Your task to perform on an android device: check google app version Image 0: 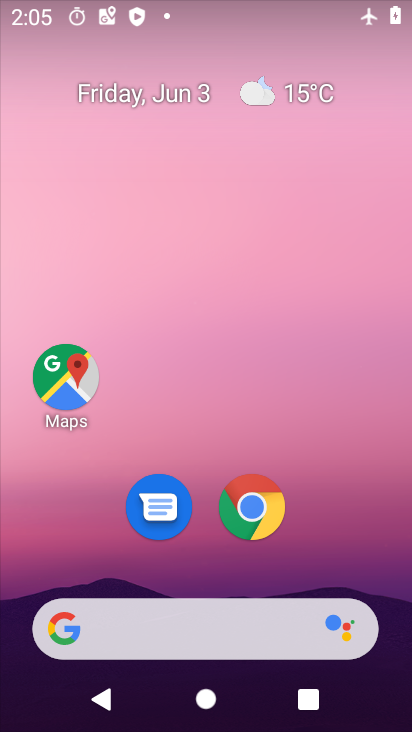
Step 0: drag from (386, 633) to (217, 28)
Your task to perform on an android device: check google app version Image 1: 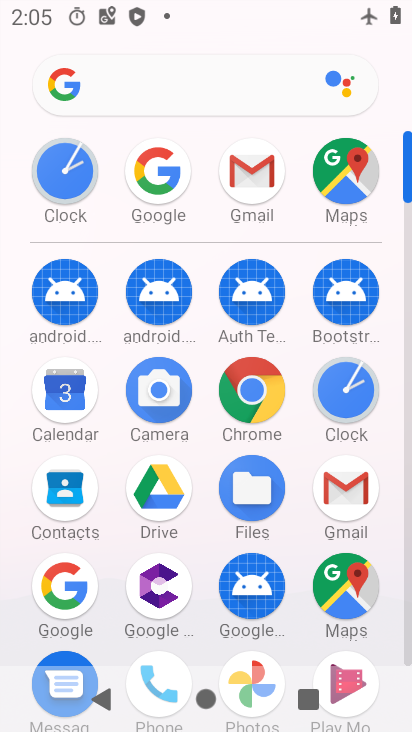
Step 1: click (79, 571)
Your task to perform on an android device: check google app version Image 2: 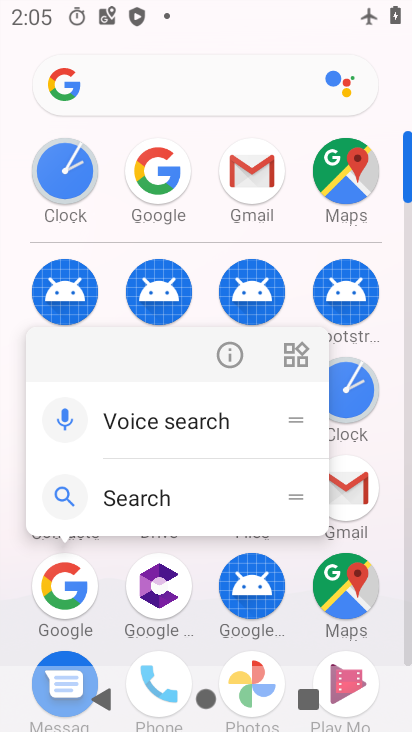
Step 2: click (229, 350)
Your task to perform on an android device: check google app version Image 3: 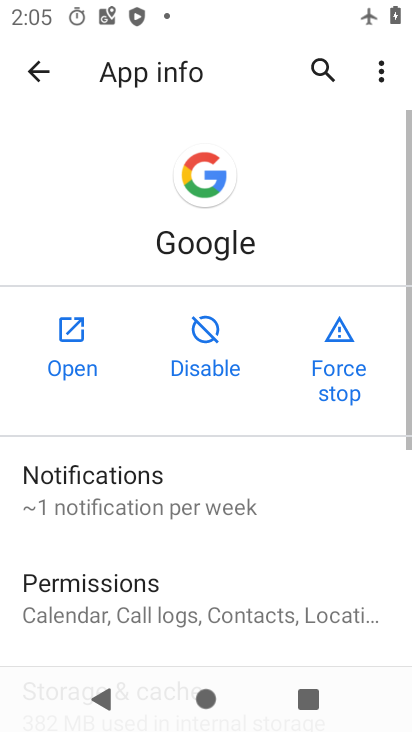
Step 3: drag from (223, 601) to (255, 44)
Your task to perform on an android device: check google app version Image 4: 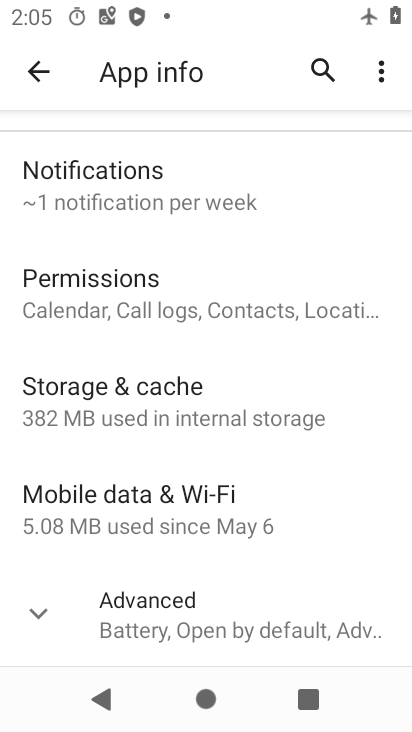
Step 4: click (45, 637)
Your task to perform on an android device: check google app version Image 5: 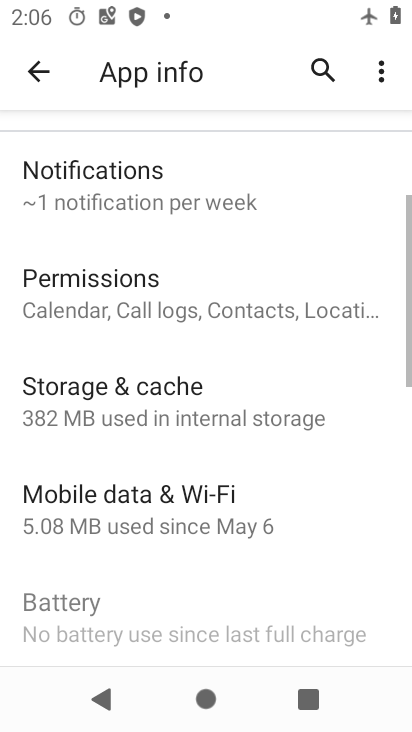
Step 5: task complete